Your task to perform on an android device: Open Google Chrome and open the bookmarks view Image 0: 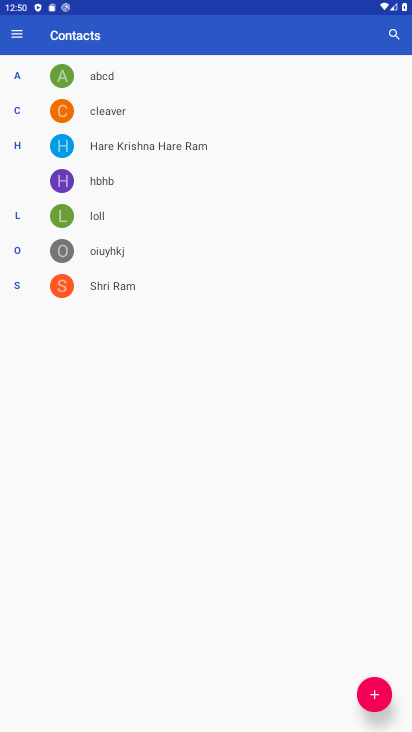
Step 0: press home button
Your task to perform on an android device: Open Google Chrome and open the bookmarks view Image 1: 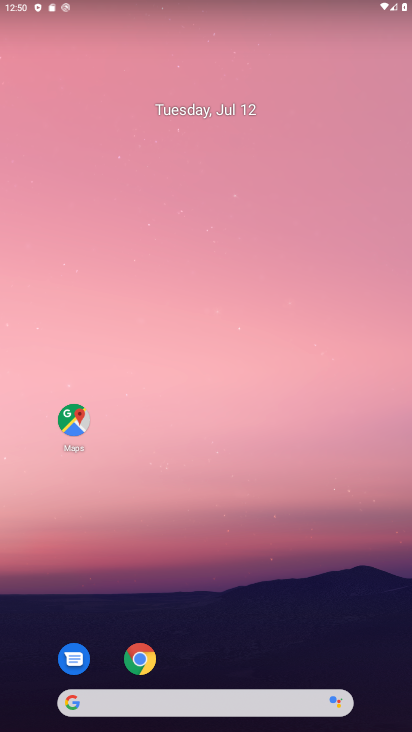
Step 1: click (147, 657)
Your task to perform on an android device: Open Google Chrome and open the bookmarks view Image 2: 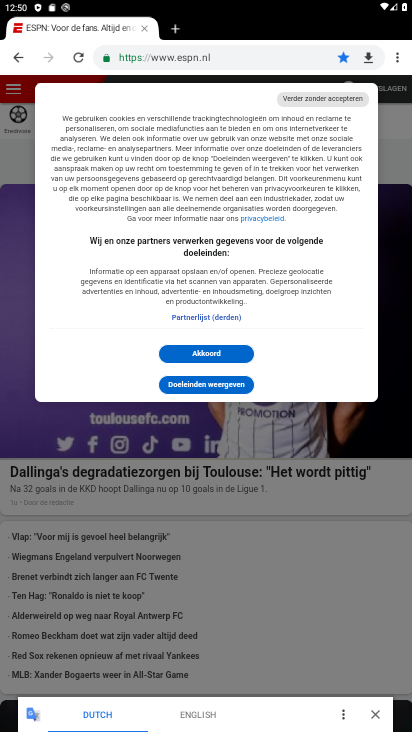
Step 2: click (397, 52)
Your task to perform on an android device: Open Google Chrome and open the bookmarks view Image 3: 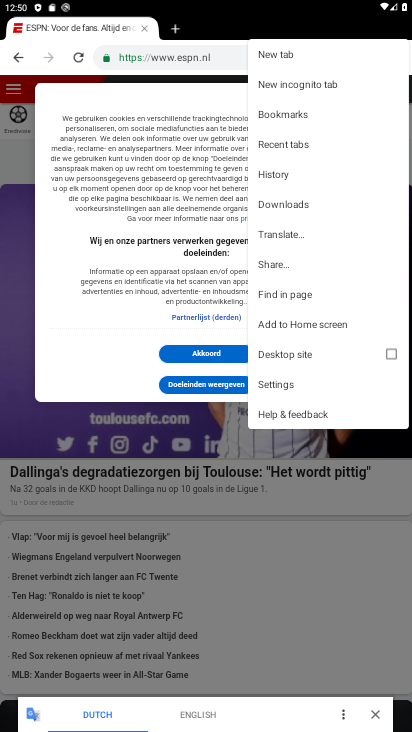
Step 3: click (308, 109)
Your task to perform on an android device: Open Google Chrome and open the bookmarks view Image 4: 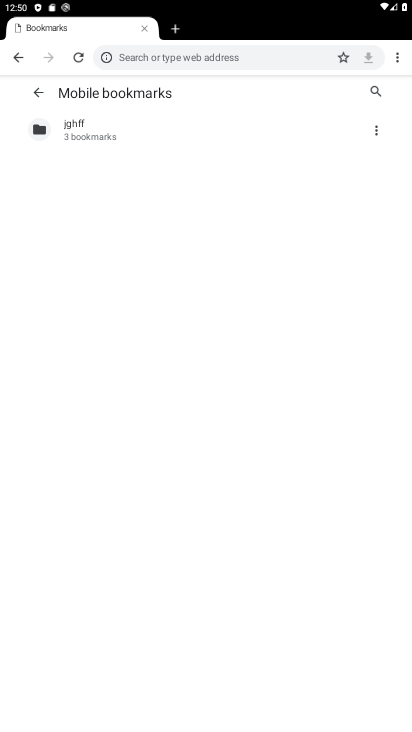
Step 4: task complete